Your task to perform on an android device: Turn on the flashlight Image 0: 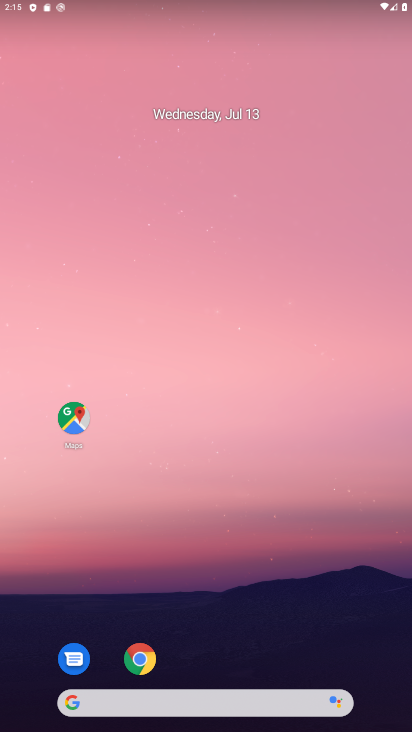
Step 0: drag from (203, 643) to (208, 54)
Your task to perform on an android device: Turn on the flashlight Image 1: 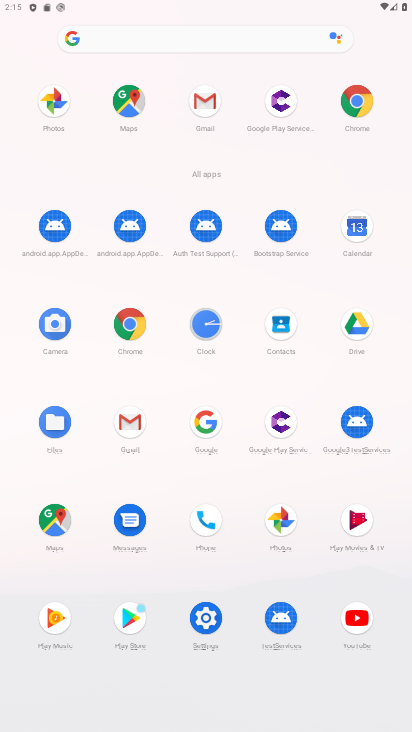
Step 1: click (216, 605)
Your task to perform on an android device: Turn on the flashlight Image 2: 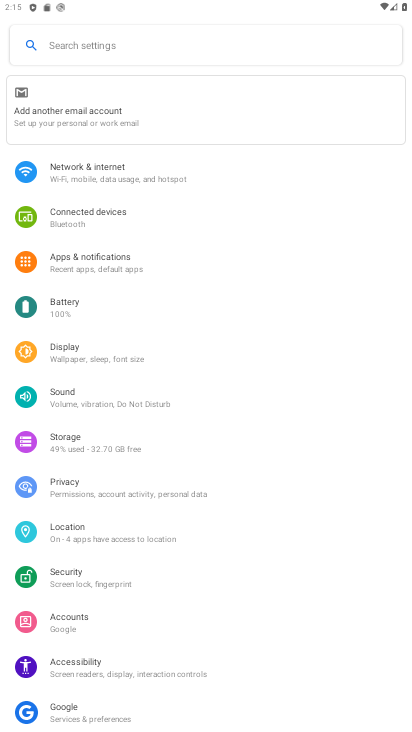
Step 2: click (74, 35)
Your task to perform on an android device: Turn on the flashlight Image 3: 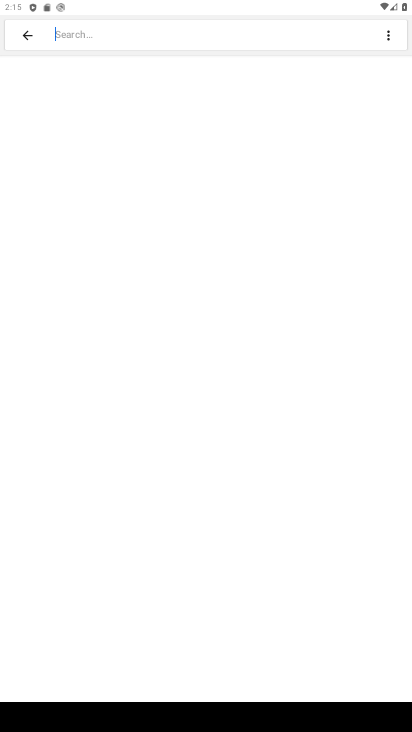
Step 3: type "flashlight"
Your task to perform on an android device: Turn on the flashlight Image 4: 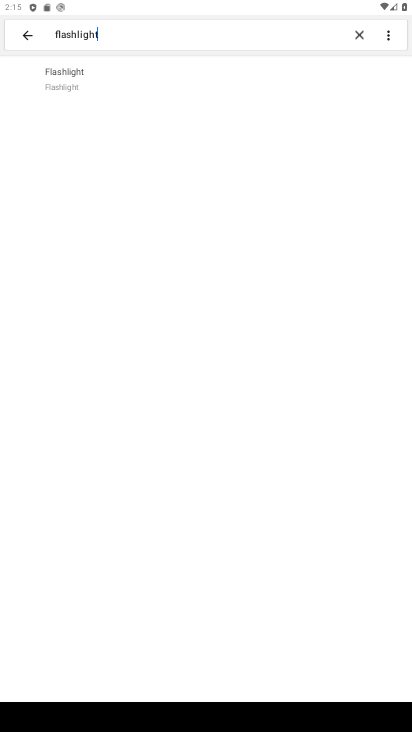
Step 4: click (88, 78)
Your task to perform on an android device: Turn on the flashlight Image 5: 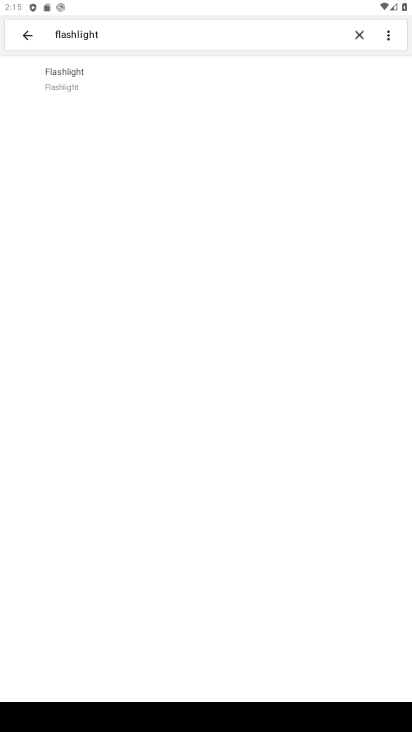
Step 5: click (88, 78)
Your task to perform on an android device: Turn on the flashlight Image 6: 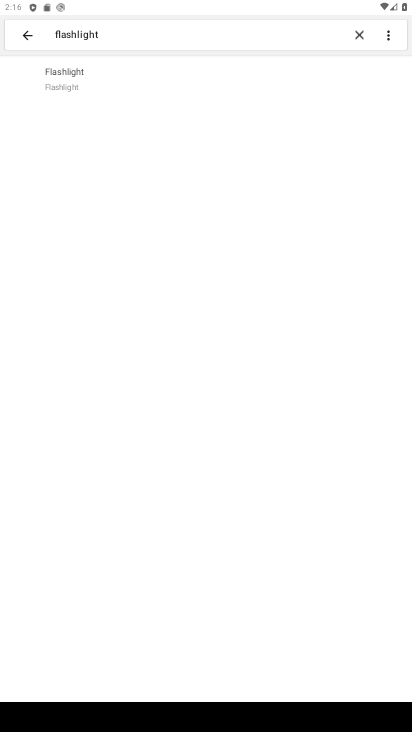
Step 6: task complete